Your task to perform on an android device: toggle notification dots Image 0: 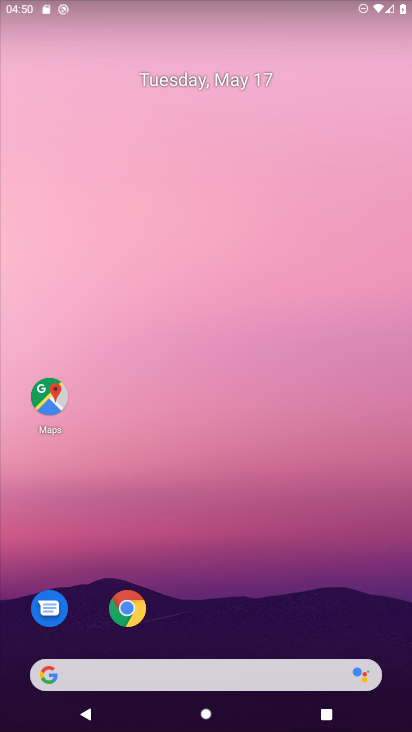
Step 0: drag from (242, 662) to (259, 198)
Your task to perform on an android device: toggle notification dots Image 1: 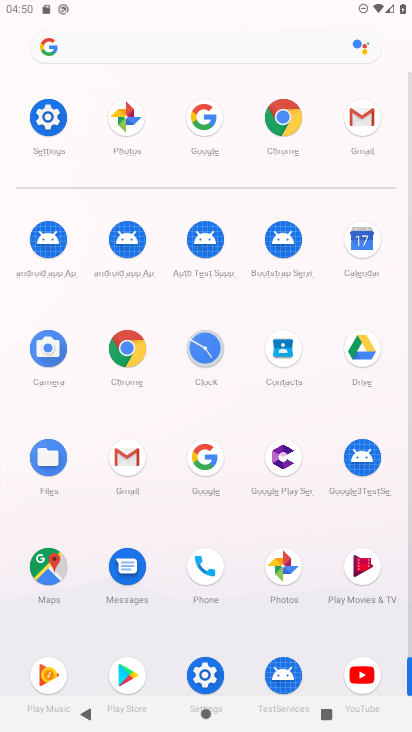
Step 1: click (51, 122)
Your task to perform on an android device: toggle notification dots Image 2: 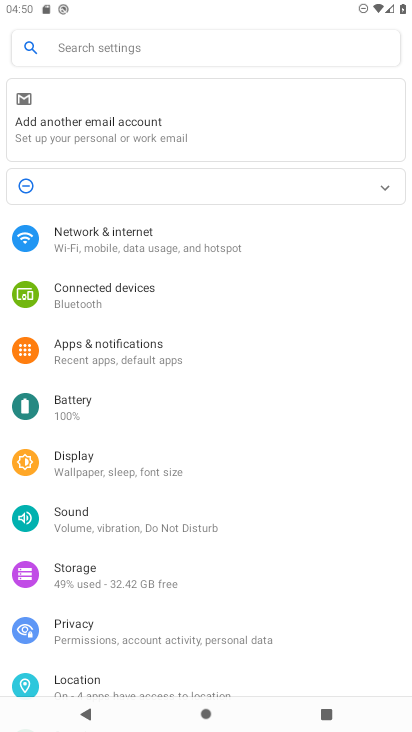
Step 2: drag from (122, 686) to (158, 407)
Your task to perform on an android device: toggle notification dots Image 3: 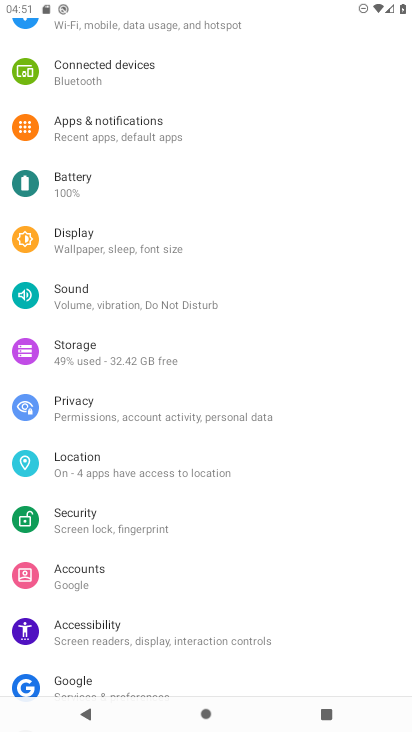
Step 3: click (94, 128)
Your task to perform on an android device: toggle notification dots Image 4: 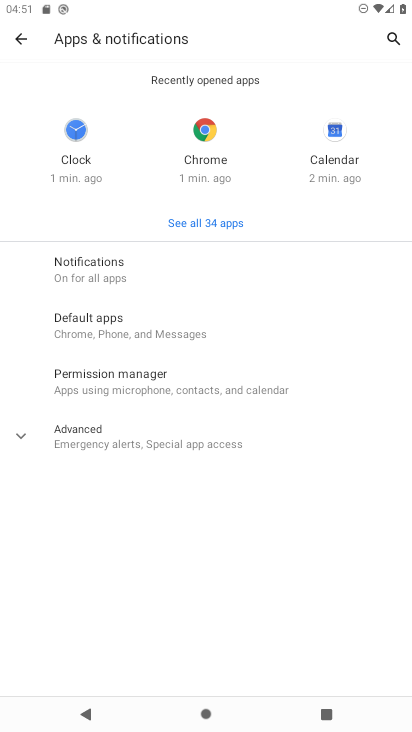
Step 4: click (77, 272)
Your task to perform on an android device: toggle notification dots Image 5: 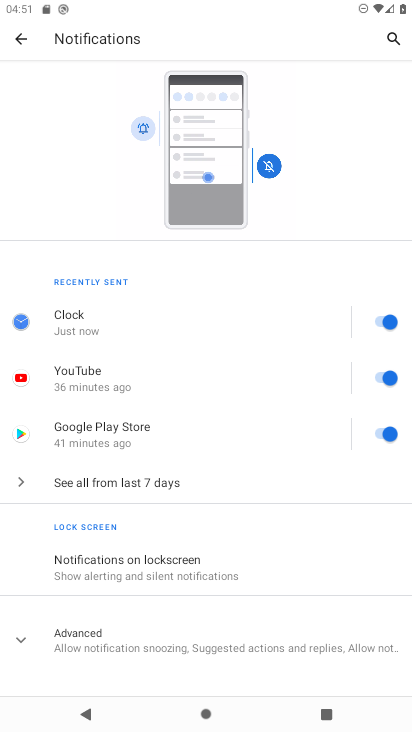
Step 5: click (109, 642)
Your task to perform on an android device: toggle notification dots Image 6: 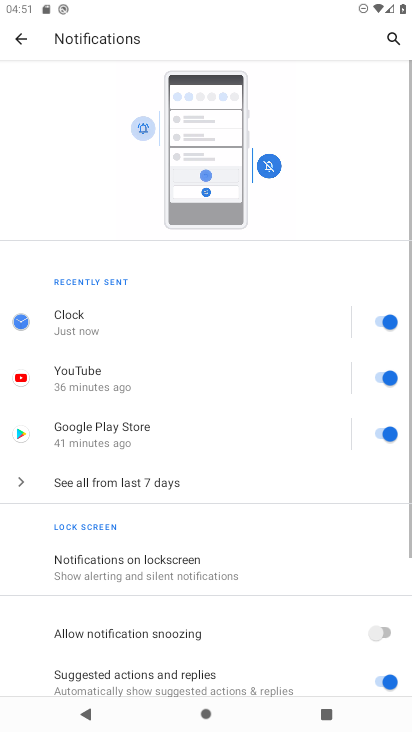
Step 6: drag from (192, 662) to (185, 330)
Your task to perform on an android device: toggle notification dots Image 7: 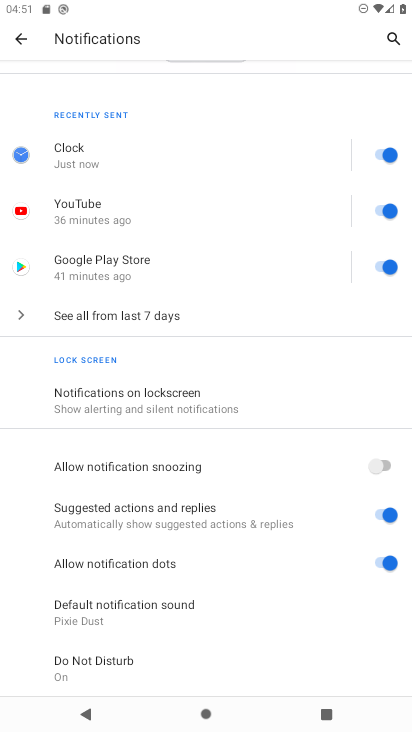
Step 7: click (377, 558)
Your task to perform on an android device: toggle notification dots Image 8: 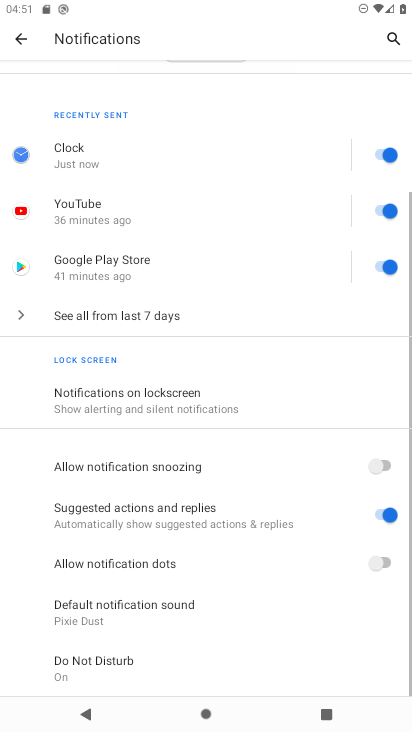
Step 8: task complete